Your task to perform on an android device: change keyboard looks Image 0: 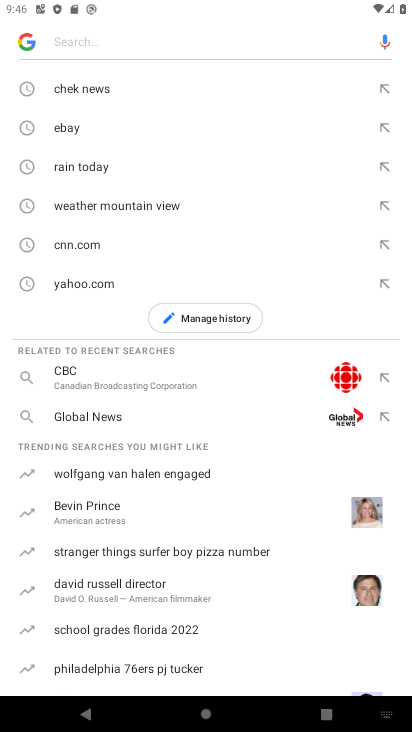
Step 0: press home button
Your task to perform on an android device: change keyboard looks Image 1: 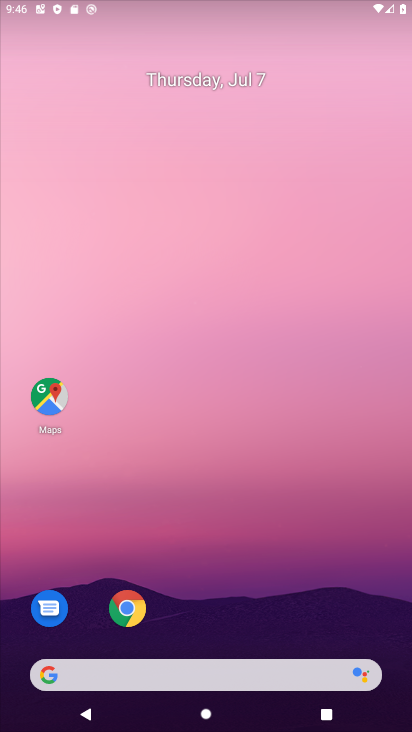
Step 1: drag from (230, 555) to (278, 106)
Your task to perform on an android device: change keyboard looks Image 2: 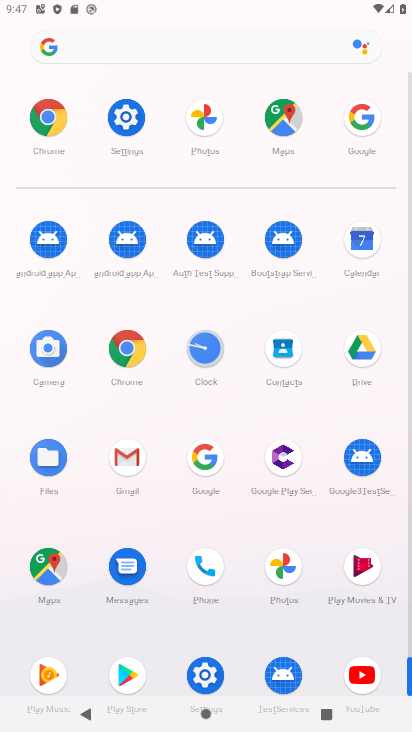
Step 2: click (204, 675)
Your task to perform on an android device: change keyboard looks Image 3: 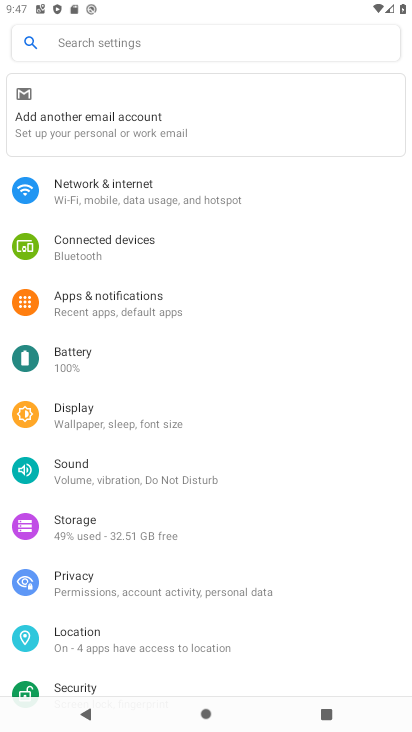
Step 3: drag from (194, 619) to (252, 148)
Your task to perform on an android device: change keyboard looks Image 4: 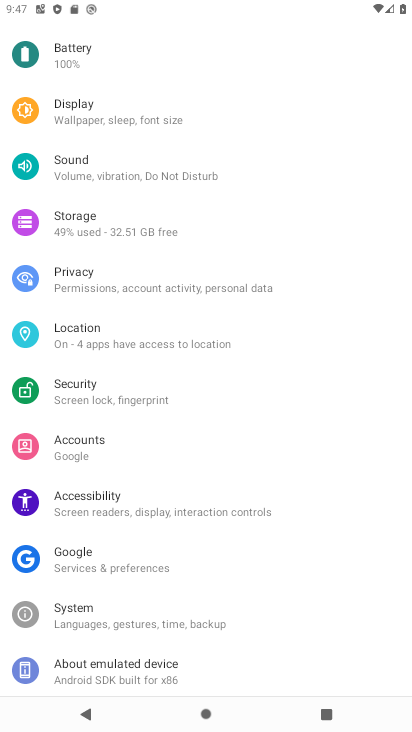
Step 4: click (80, 611)
Your task to perform on an android device: change keyboard looks Image 5: 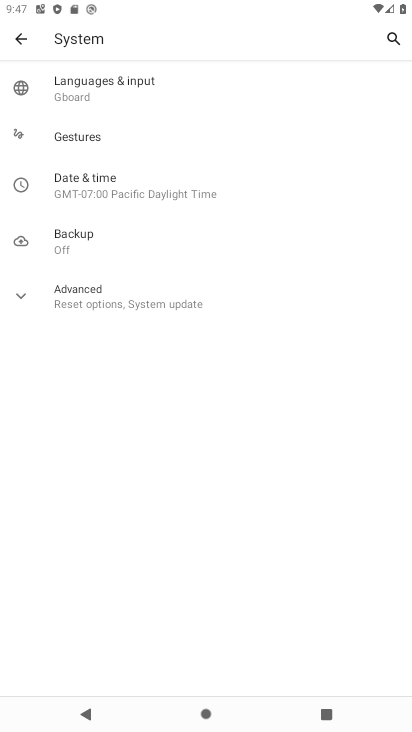
Step 5: click (98, 86)
Your task to perform on an android device: change keyboard looks Image 6: 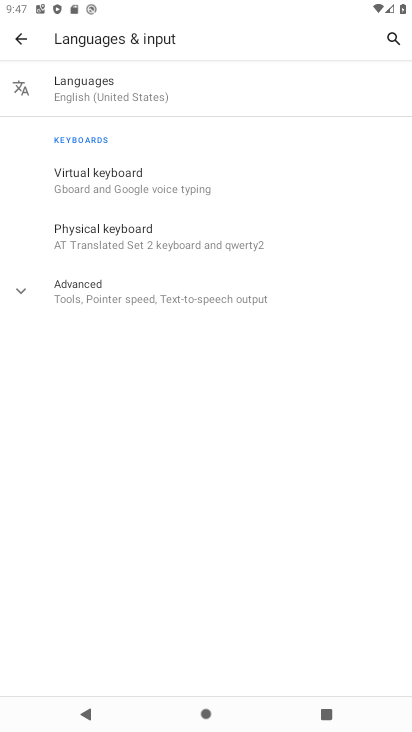
Step 6: click (120, 173)
Your task to perform on an android device: change keyboard looks Image 7: 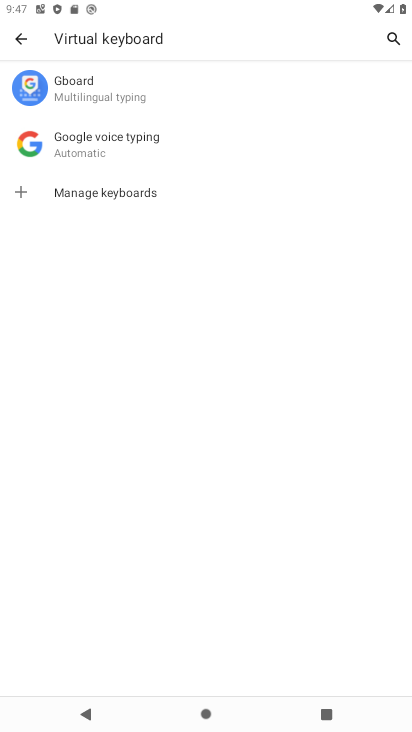
Step 7: click (124, 90)
Your task to perform on an android device: change keyboard looks Image 8: 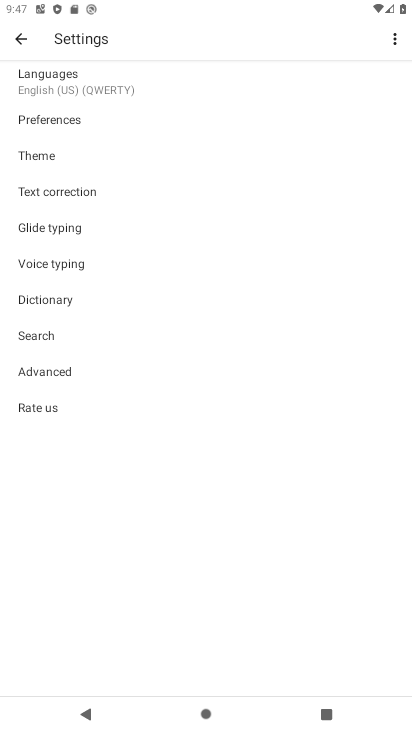
Step 8: click (50, 168)
Your task to perform on an android device: change keyboard looks Image 9: 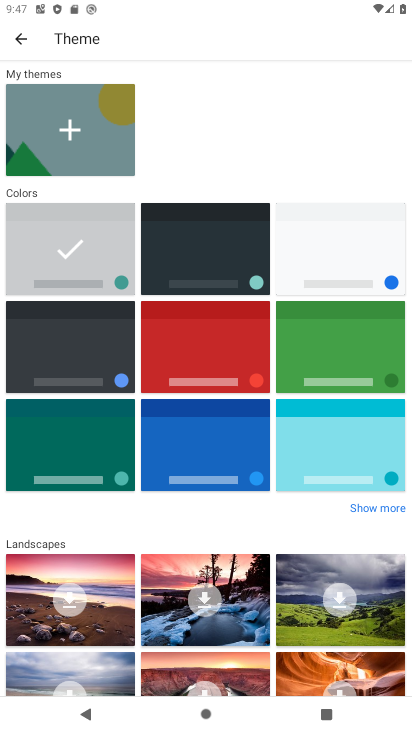
Step 9: click (211, 246)
Your task to perform on an android device: change keyboard looks Image 10: 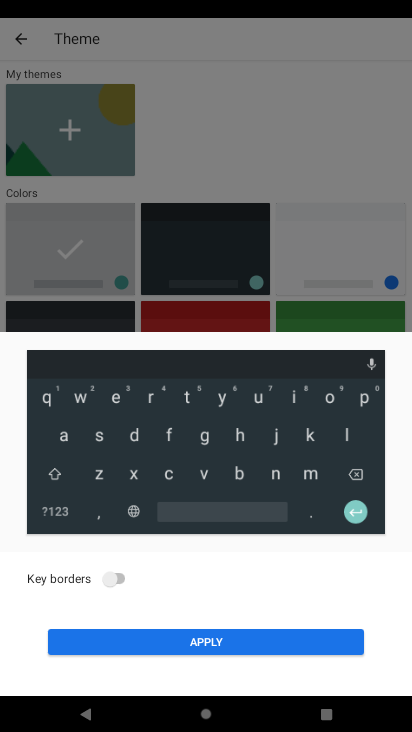
Step 10: click (199, 640)
Your task to perform on an android device: change keyboard looks Image 11: 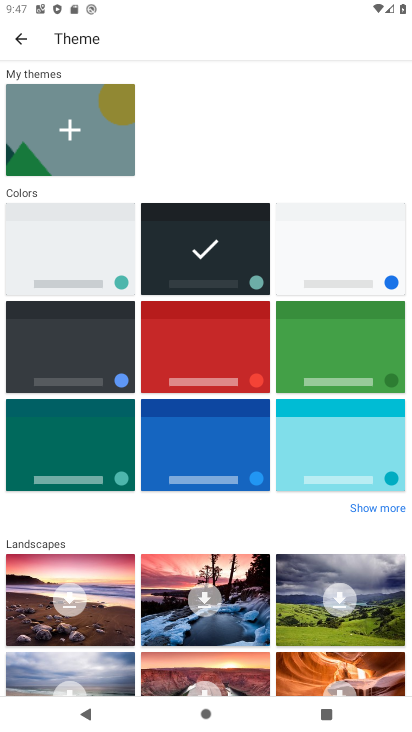
Step 11: task complete